Your task to perform on an android device: turn off airplane mode Image 0: 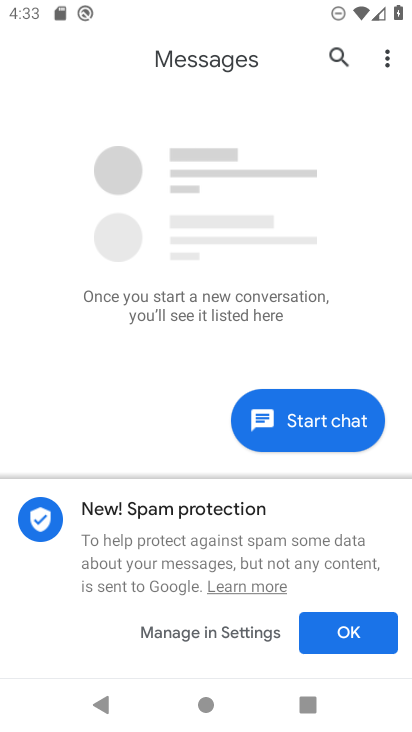
Step 0: press home button
Your task to perform on an android device: turn off airplane mode Image 1: 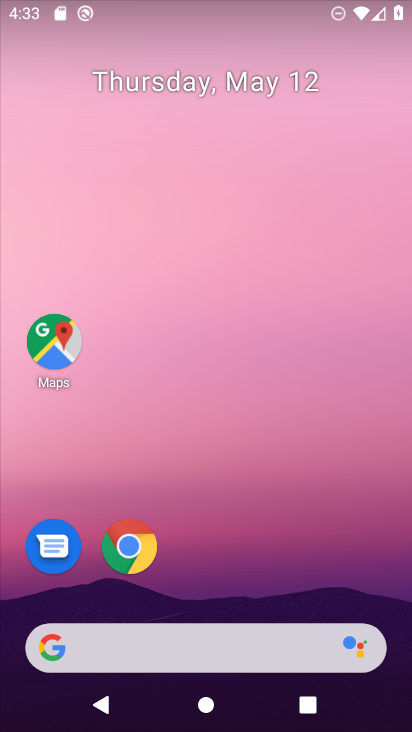
Step 1: drag from (208, 588) to (263, 211)
Your task to perform on an android device: turn off airplane mode Image 2: 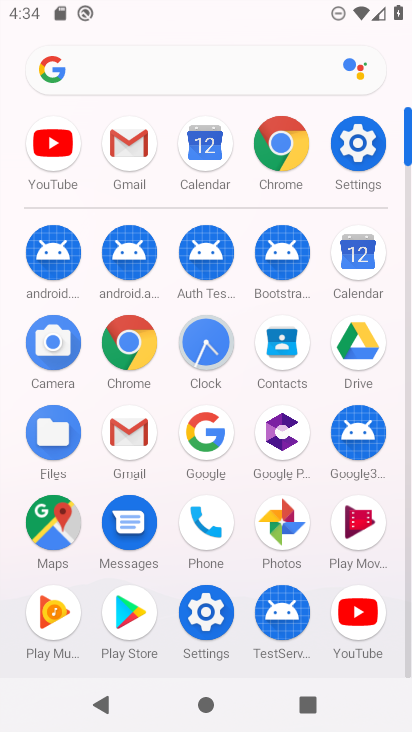
Step 2: click (353, 144)
Your task to perform on an android device: turn off airplane mode Image 3: 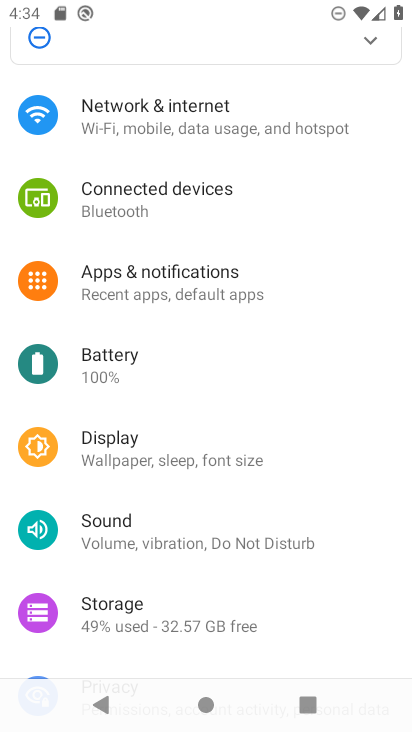
Step 3: click (190, 121)
Your task to perform on an android device: turn off airplane mode Image 4: 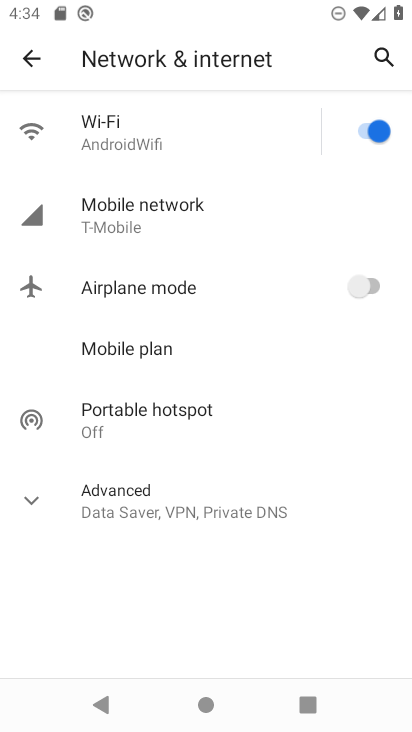
Step 4: task complete